Your task to perform on an android device: all mails in gmail Image 0: 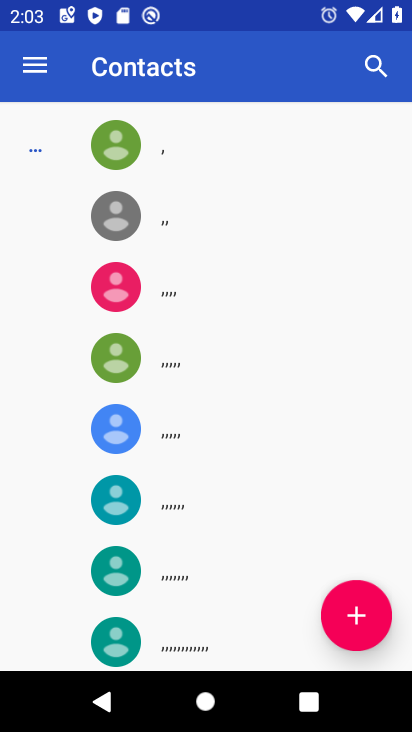
Step 0: press home button
Your task to perform on an android device: all mails in gmail Image 1: 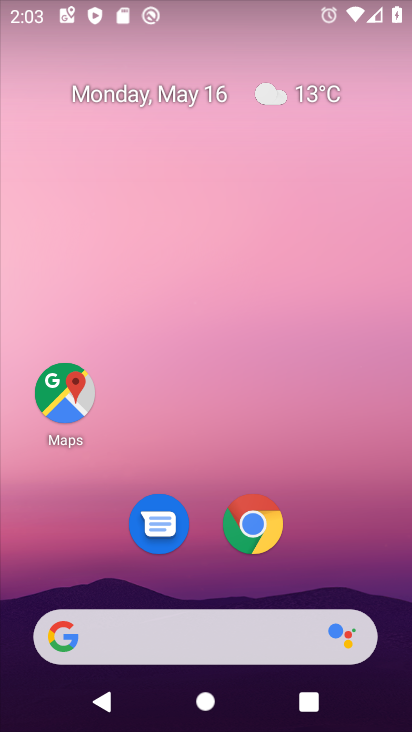
Step 1: drag from (318, 532) to (285, 47)
Your task to perform on an android device: all mails in gmail Image 2: 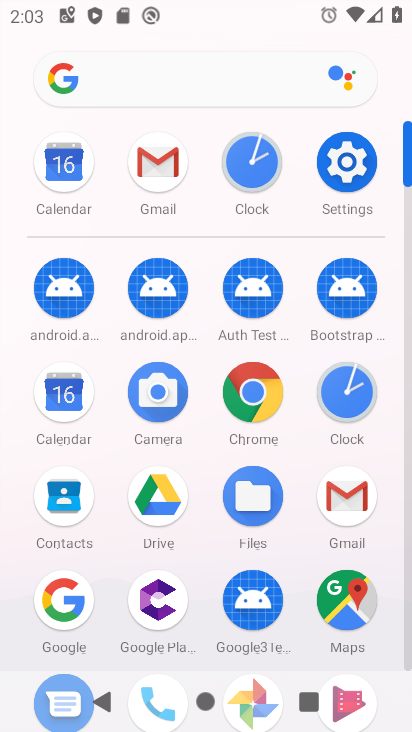
Step 2: click (153, 156)
Your task to perform on an android device: all mails in gmail Image 3: 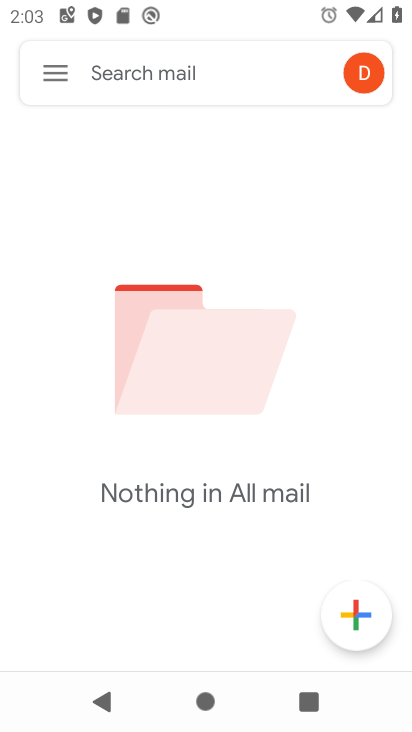
Step 3: task complete